Your task to perform on an android device: open app "YouTube Kids" Image 0: 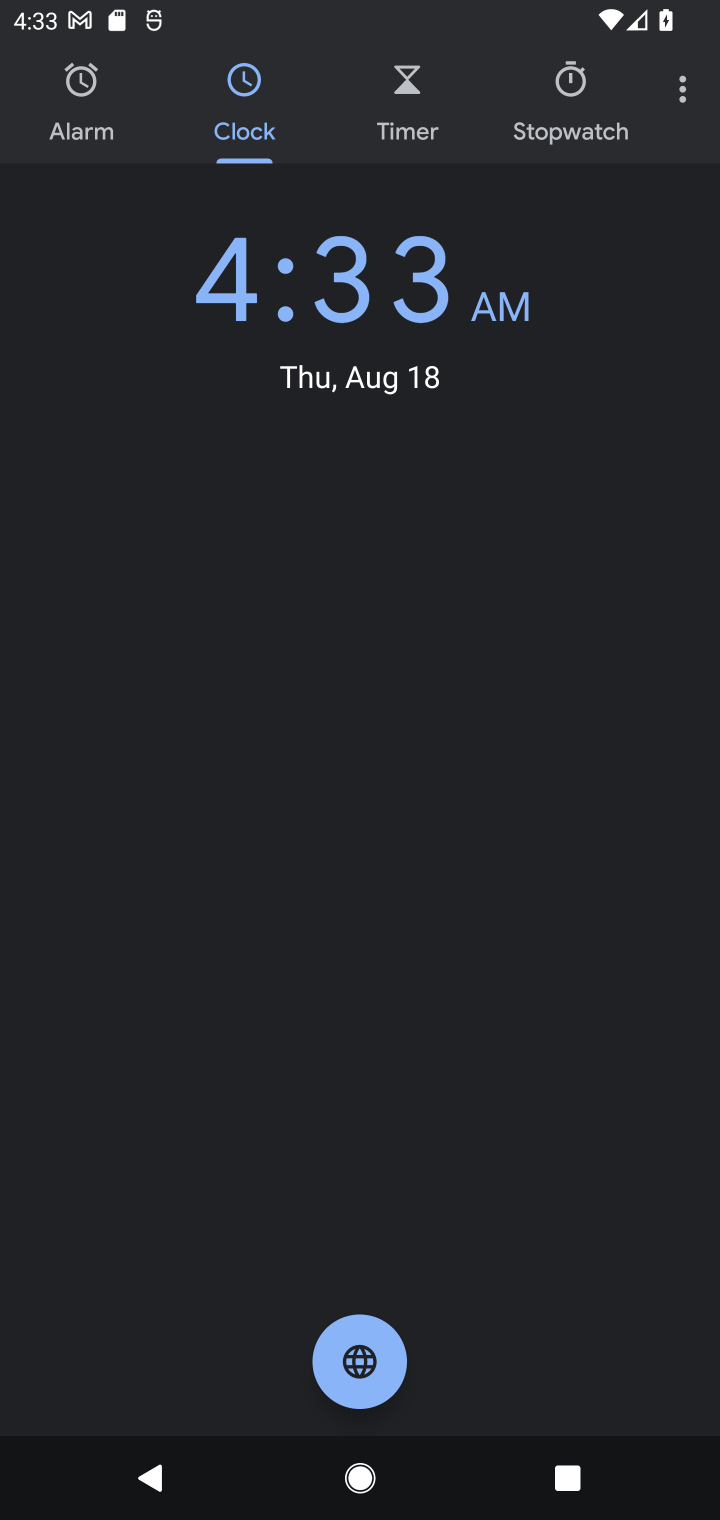
Step 0: press home button
Your task to perform on an android device: open app "YouTube Kids" Image 1: 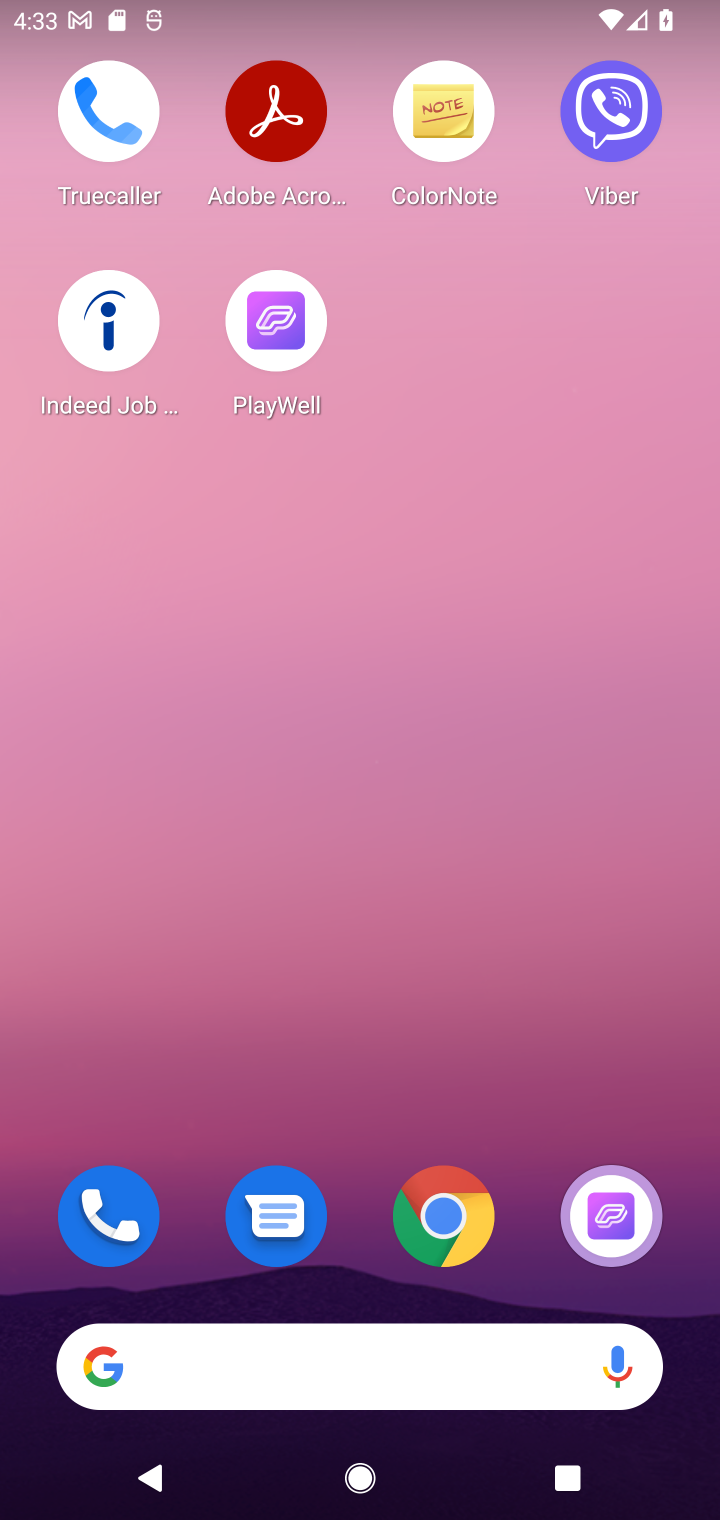
Step 1: drag from (516, 1282) to (525, 302)
Your task to perform on an android device: open app "YouTube Kids" Image 2: 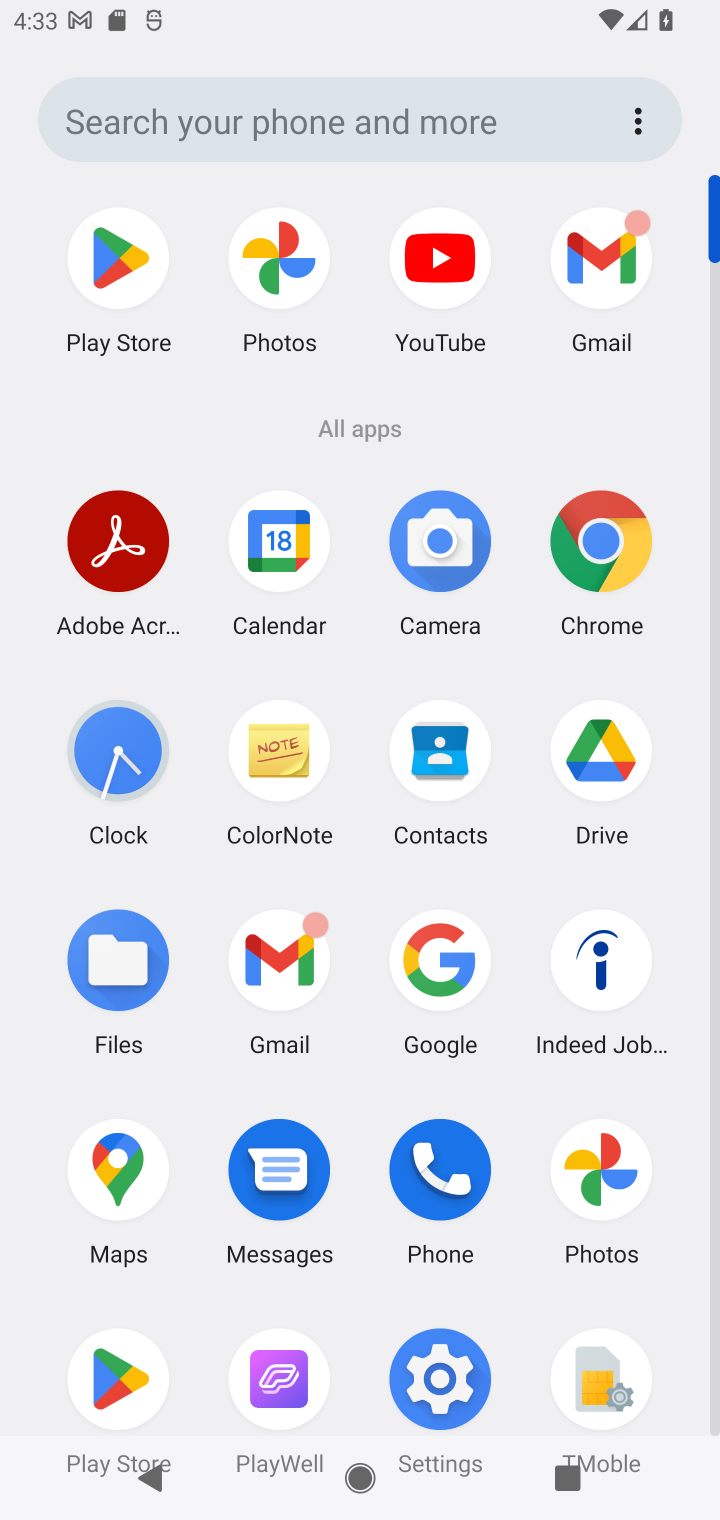
Step 2: click (120, 1380)
Your task to perform on an android device: open app "YouTube Kids" Image 3: 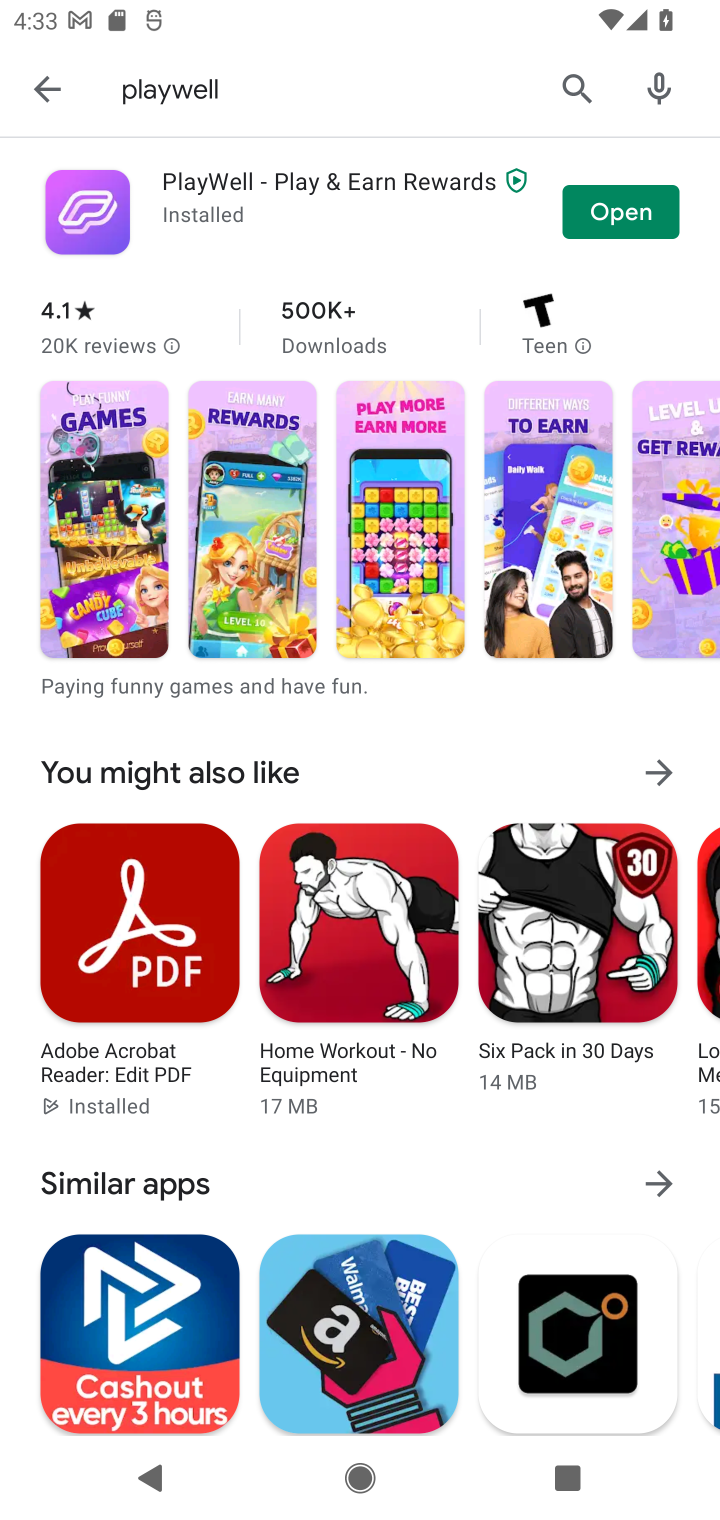
Step 3: click (567, 82)
Your task to perform on an android device: open app "YouTube Kids" Image 4: 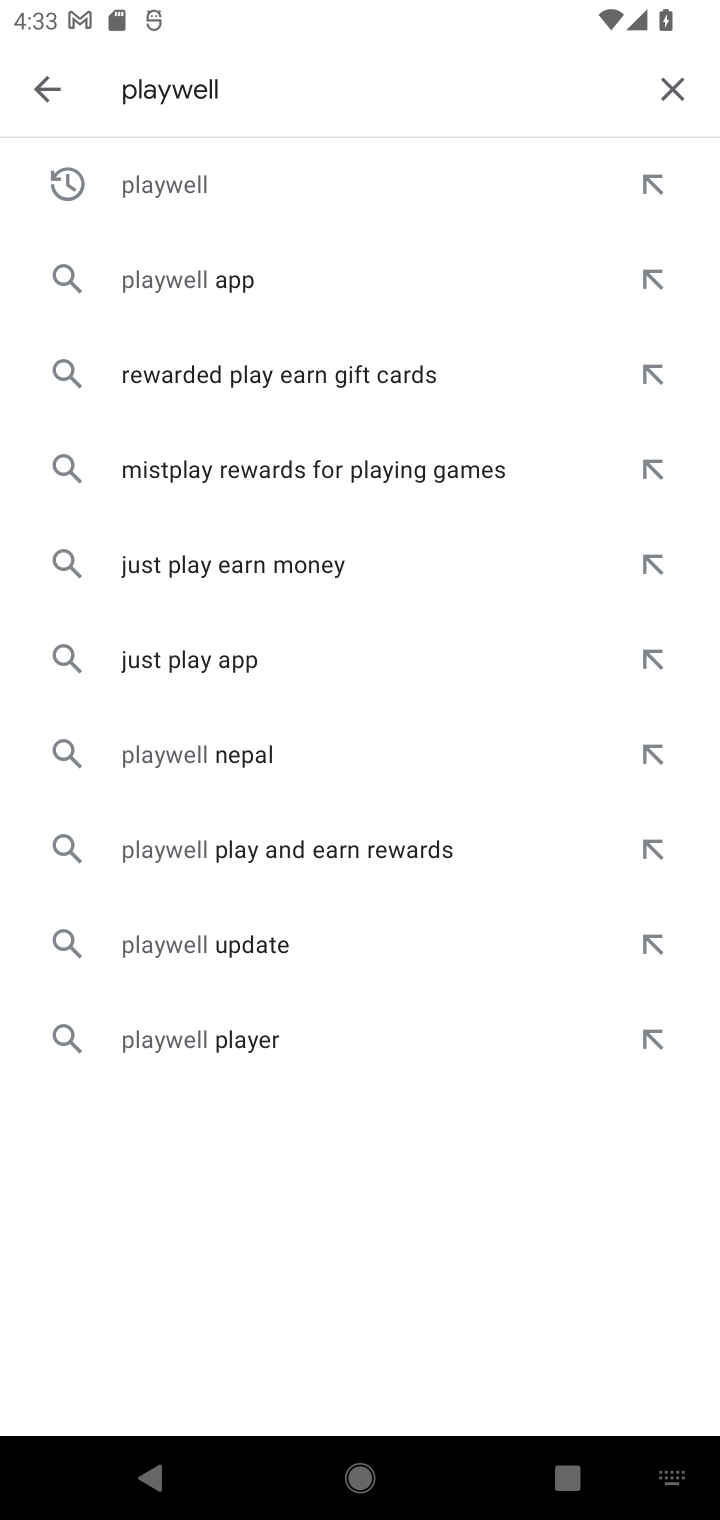
Step 4: click (671, 88)
Your task to perform on an android device: open app "YouTube Kids" Image 5: 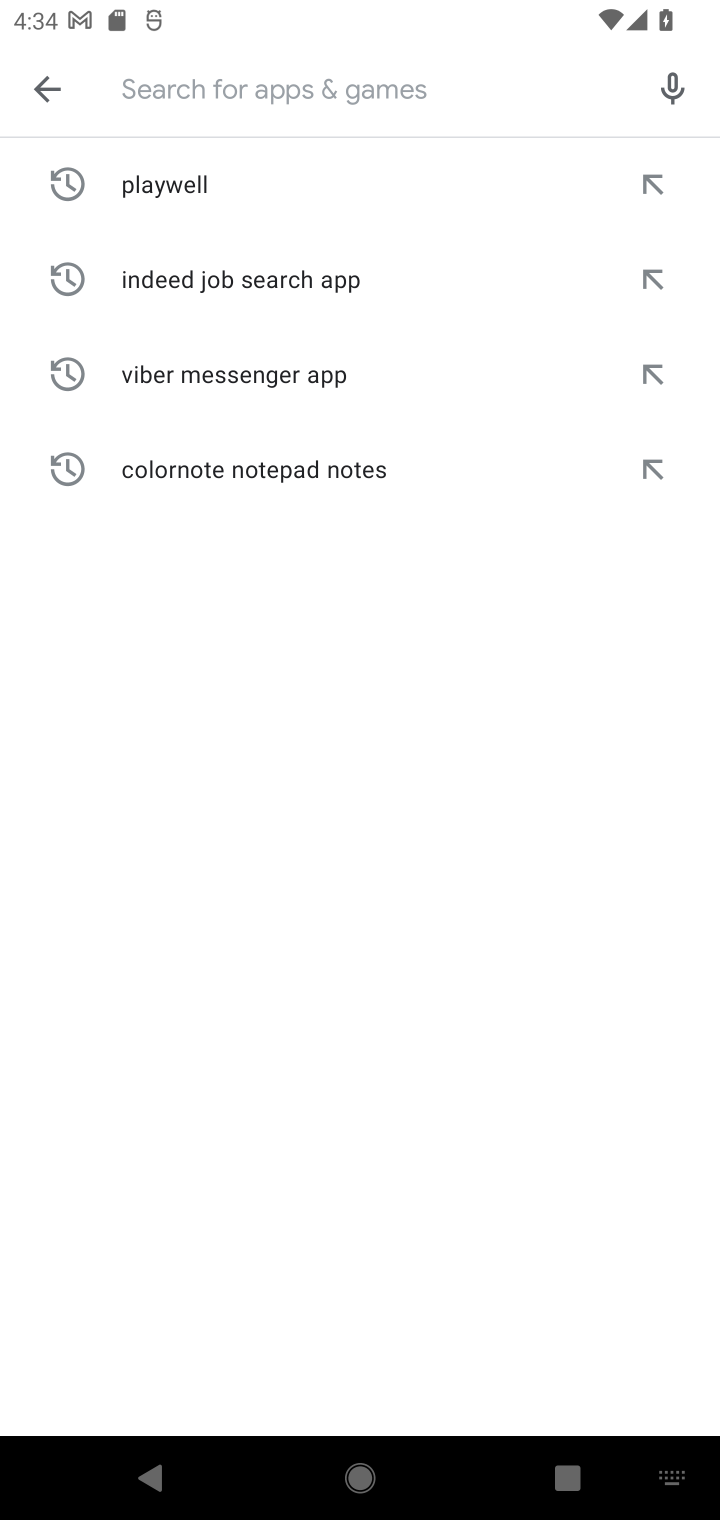
Step 5: type "YouTube Kids"
Your task to perform on an android device: open app "YouTube Kids" Image 6: 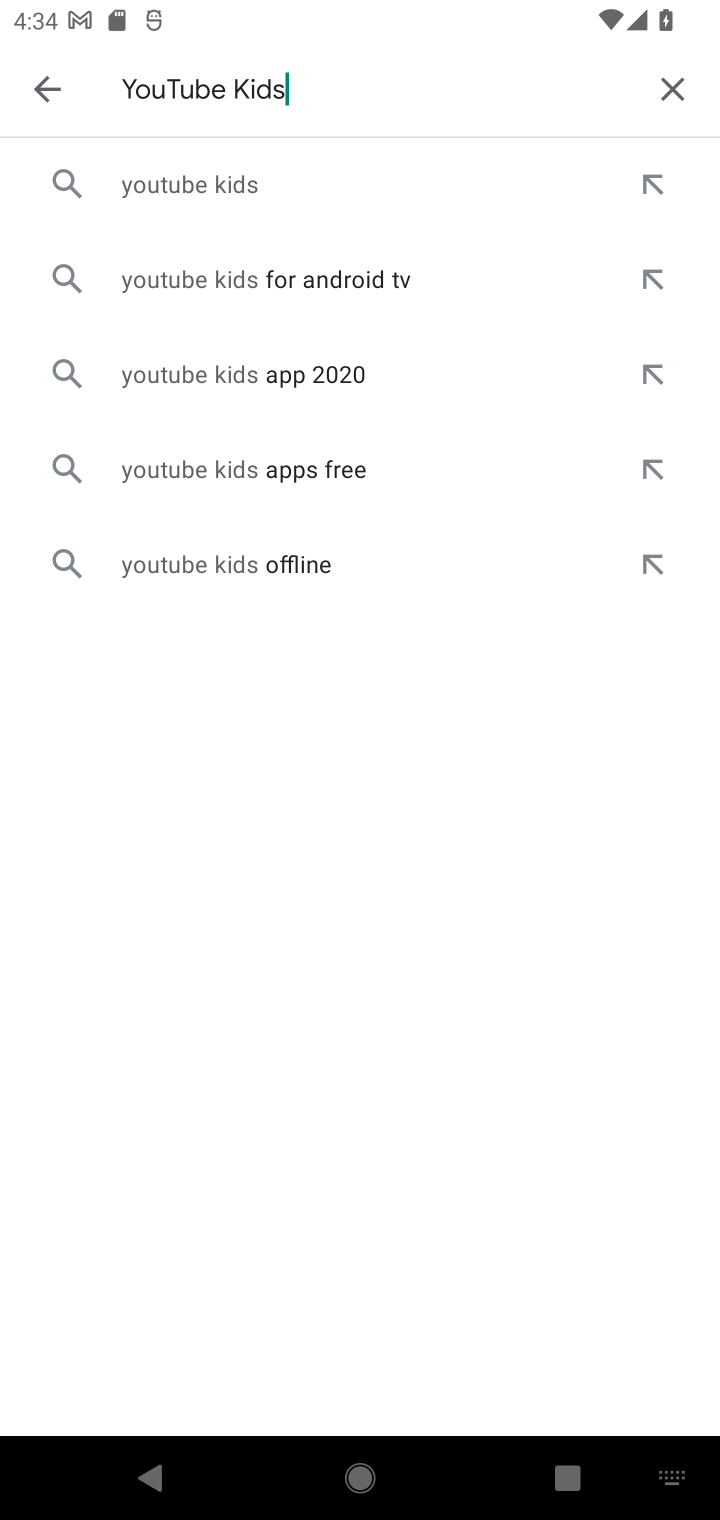
Step 6: click (160, 179)
Your task to perform on an android device: open app "YouTube Kids" Image 7: 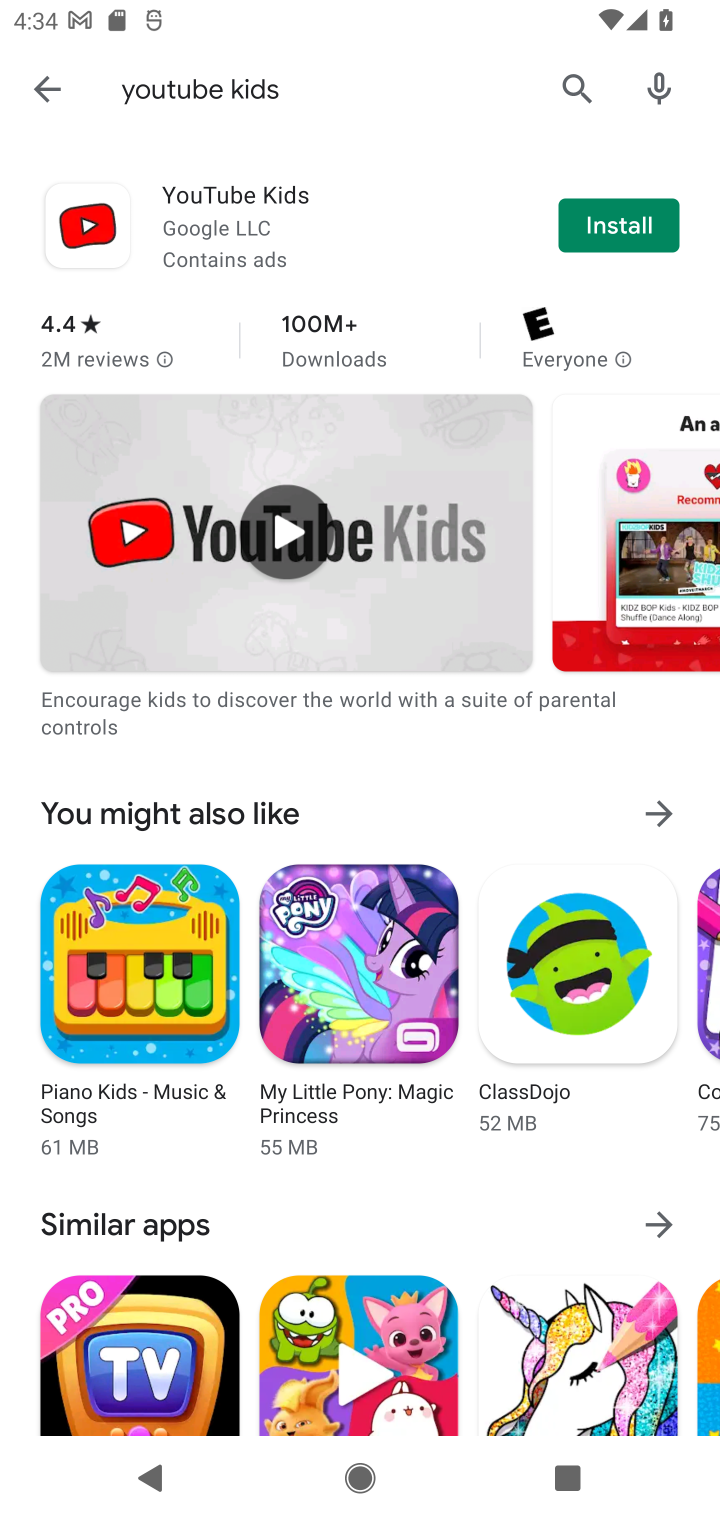
Step 7: task complete